Your task to perform on an android device: Go to privacy settings Image 0: 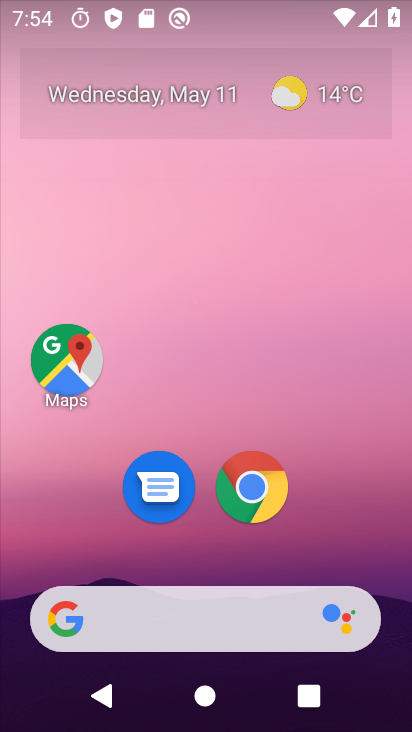
Step 0: drag from (231, 710) to (240, 211)
Your task to perform on an android device: Go to privacy settings Image 1: 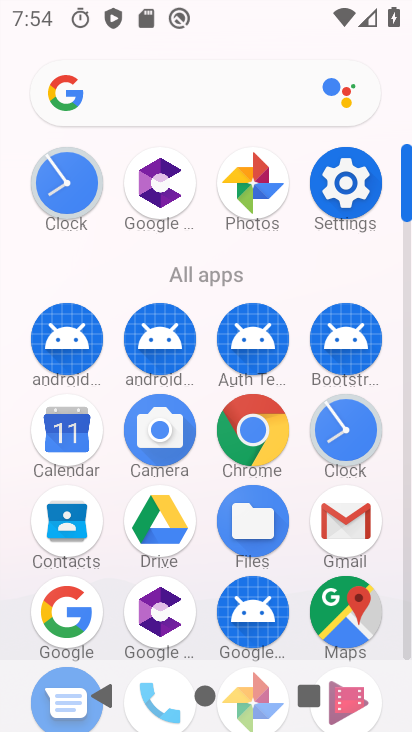
Step 1: click (345, 181)
Your task to perform on an android device: Go to privacy settings Image 2: 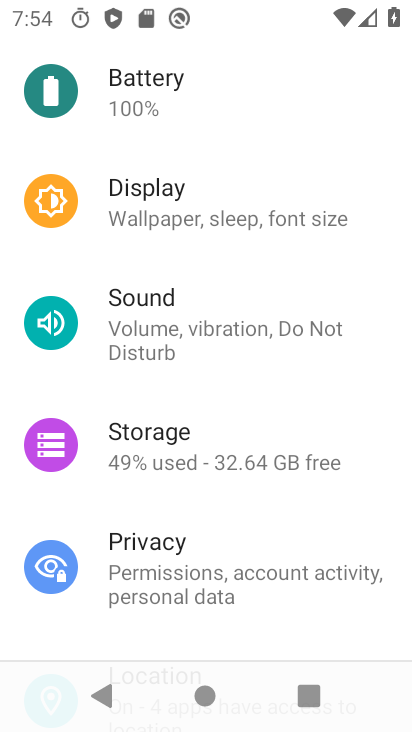
Step 2: click (150, 561)
Your task to perform on an android device: Go to privacy settings Image 3: 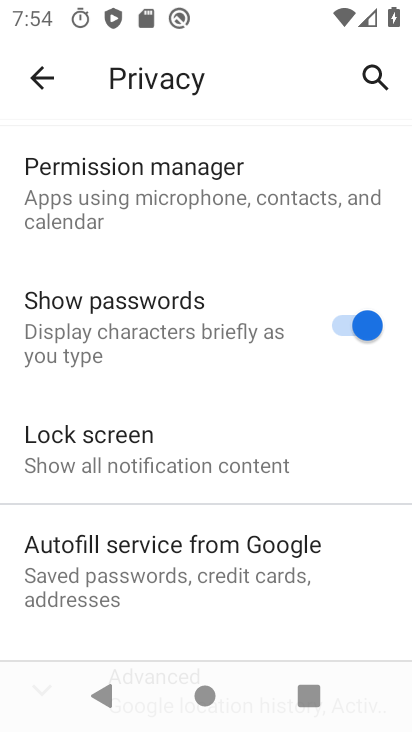
Step 3: task complete